Your task to perform on an android device: Open privacy settings Image 0: 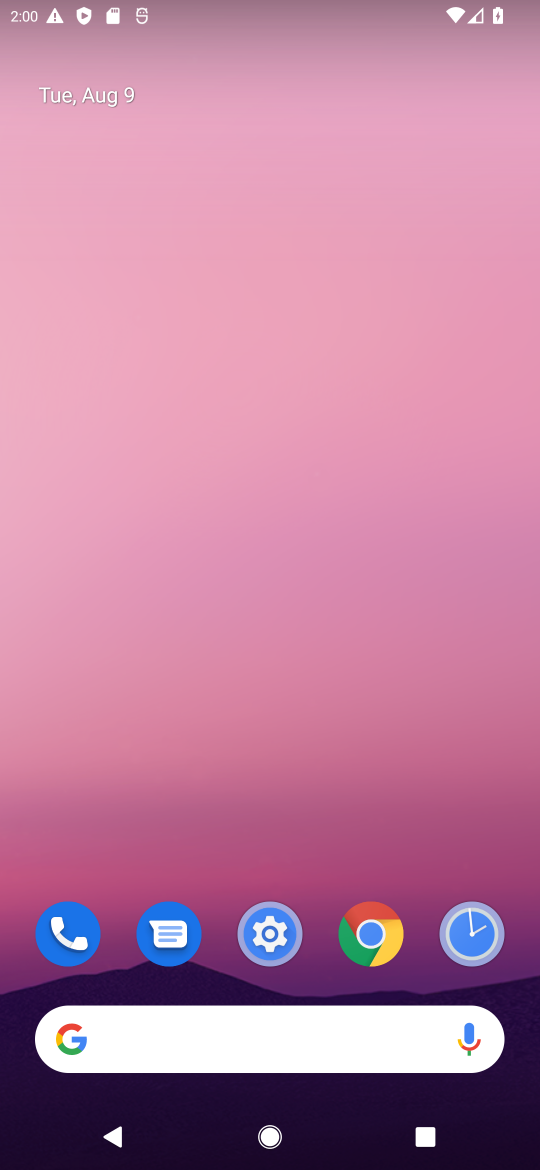
Step 0: click (247, 953)
Your task to perform on an android device: Open privacy settings Image 1: 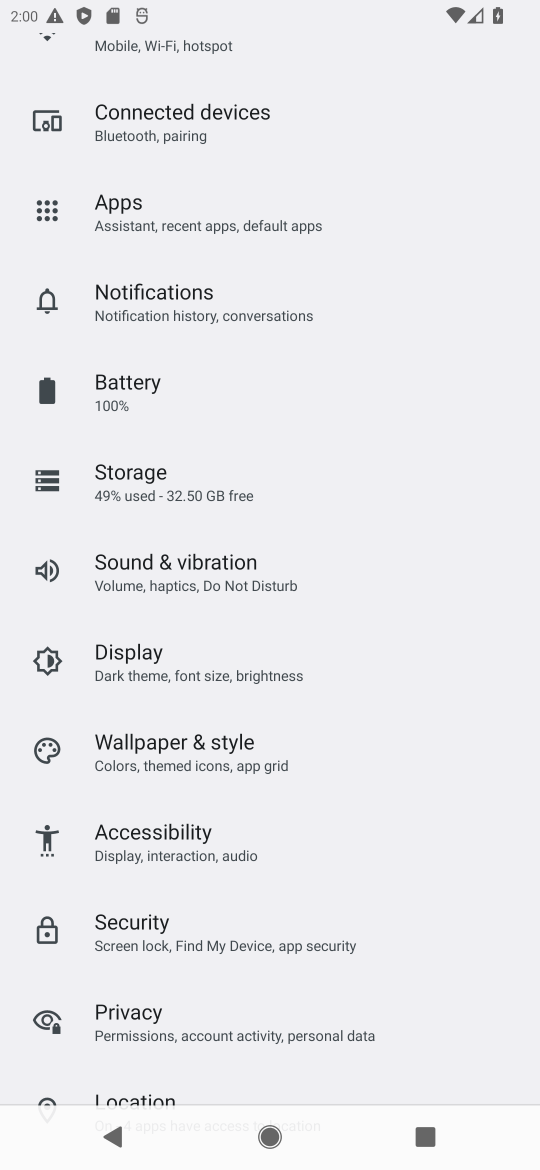
Step 1: drag from (314, 880) to (352, 716)
Your task to perform on an android device: Open privacy settings Image 2: 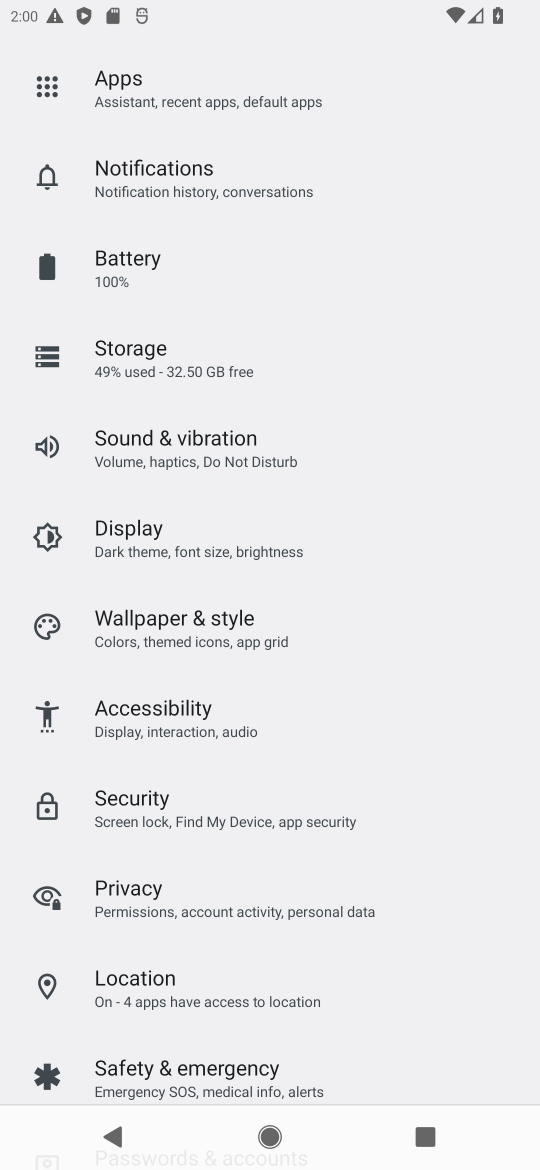
Step 2: click (311, 884)
Your task to perform on an android device: Open privacy settings Image 3: 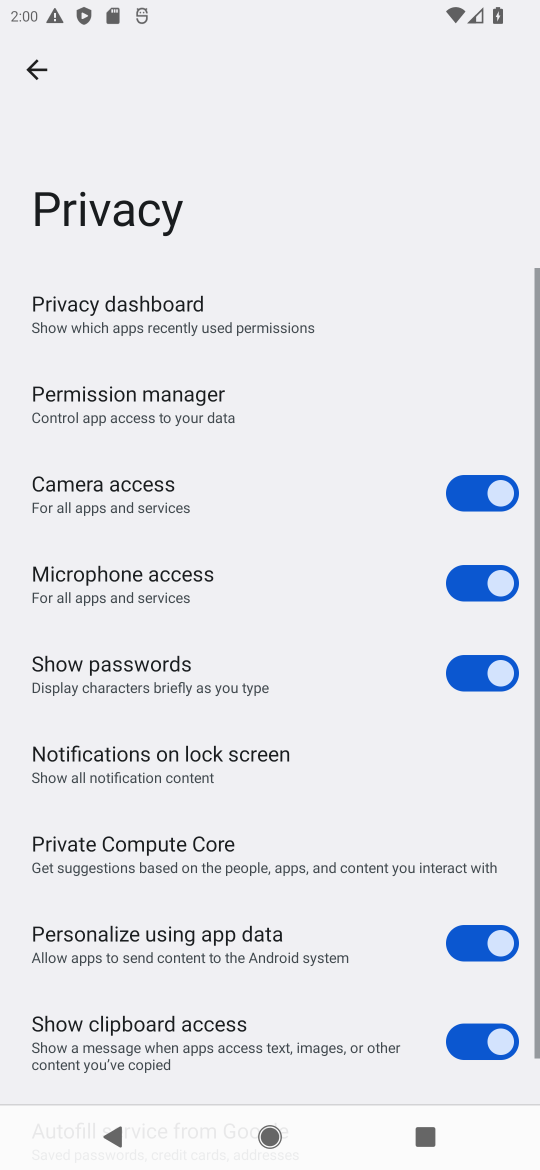
Step 3: task complete